Your task to perform on an android device: change notification settings in the gmail app Image 0: 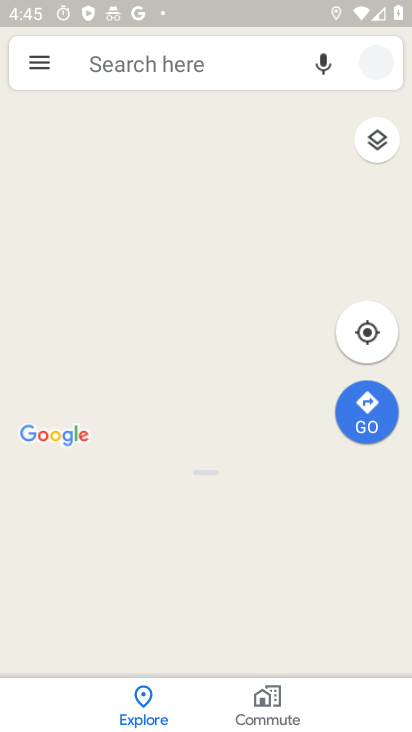
Step 0: click (125, 592)
Your task to perform on an android device: change notification settings in the gmail app Image 1: 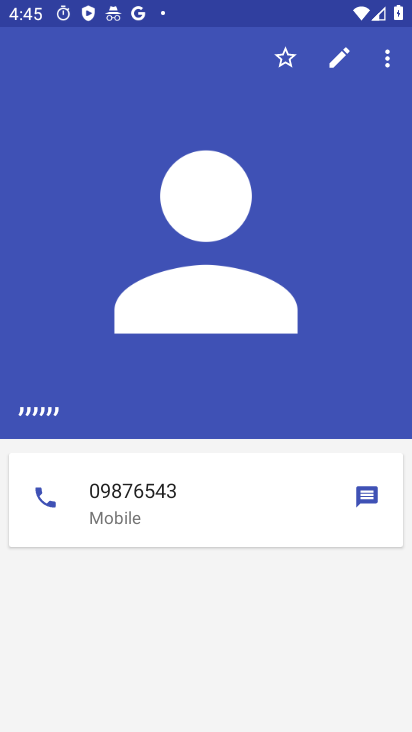
Step 1: press home button
Your task to perform on an android device: change notification settings in the gmail app Image 2: 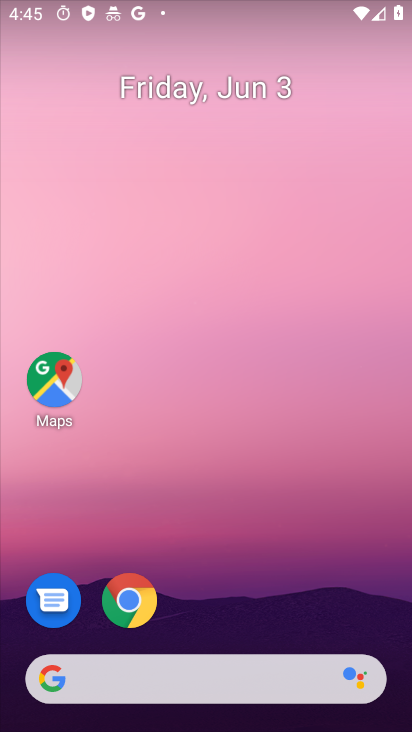
Step 2: drag from (393, 650) to (352, 164)
Your task to perform on an android device: change notification settings in the gmail app Image 3: 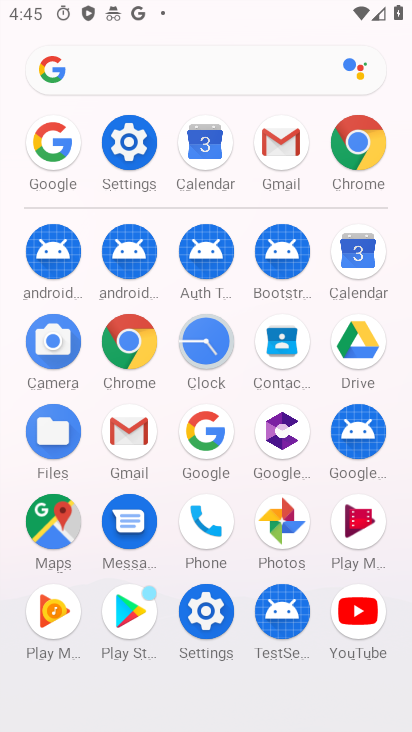
Step 3: click (137, 417)
Your task to perform on an android device: change notification settings in the gmail app Image 4: 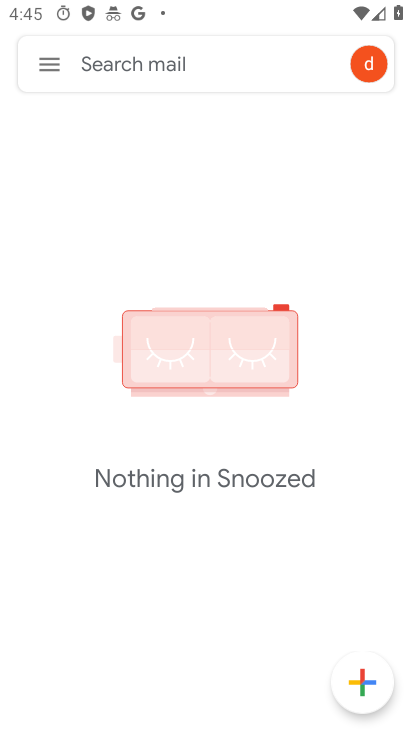
Step 4: click (52, 64)
Your task to perform on an android device: change notification settings in the gmail app Image 5: 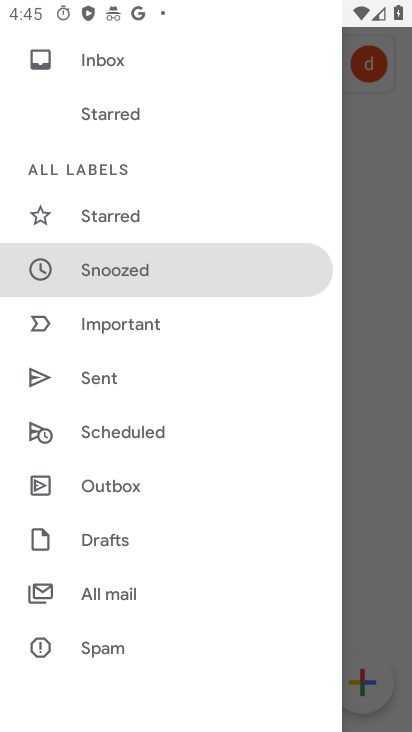
Step 5: drag from (216, 629) to (174, 125)
Your task to perform on an android device: change notification settings in the gmail app Image 6: 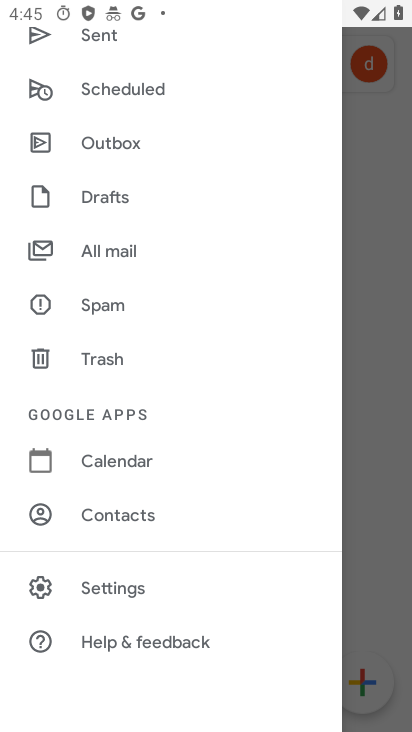
Step 6: click (76, 577)
Your task to perform on an android device: change notification settings in the gmail app Image 7: 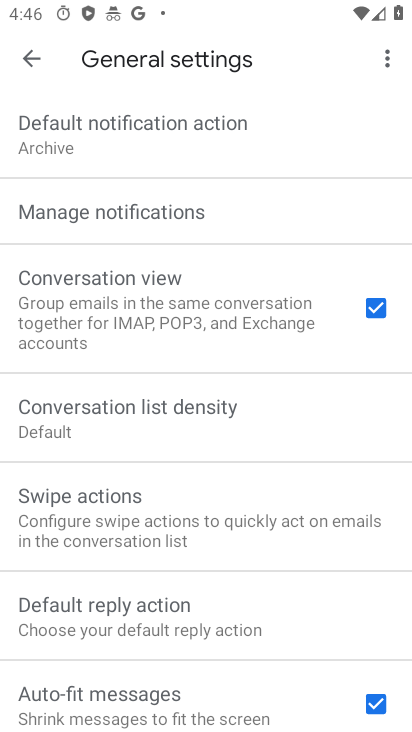
Step 7: click (166, 203)
Your task to perform on an android device: change notification settings in the gmail app Image 8: 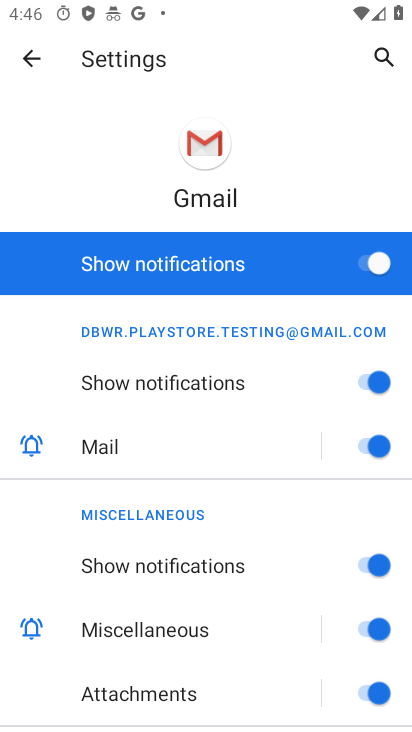
Step 8: click (368, 267)
Your task to perform on an android device: change notification settings in the gmail app Image 9: 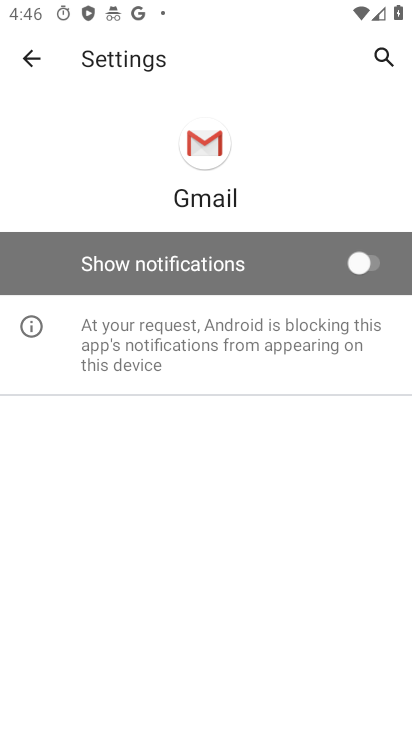
Step 9: task complete